Your task to perform on an android device: Is it going to rain tomorrow? Image 0: 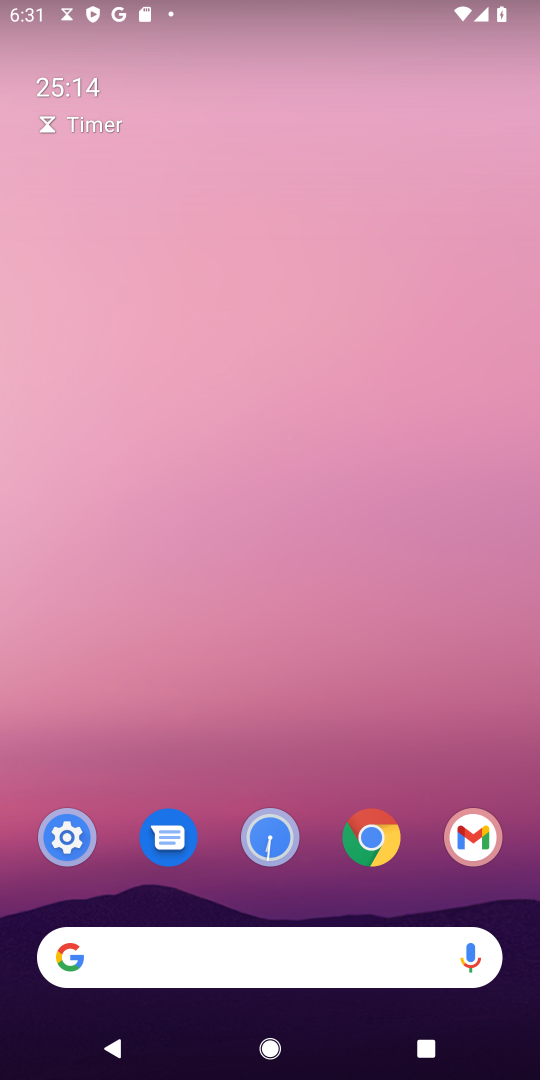
Step 0: press home button
Your task to perform on an android device: Is it going to rain tomorrow? Image 1: 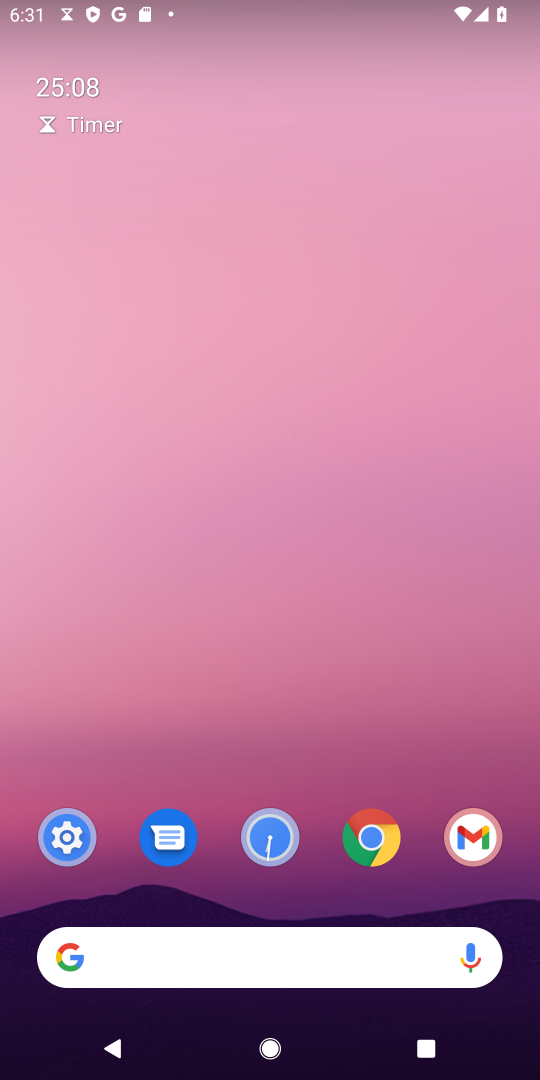
Step 1: drag from (322, 878) to (350, 191)
Your task to perform on an android device: Is it going to rain tomorrow? Image 2: 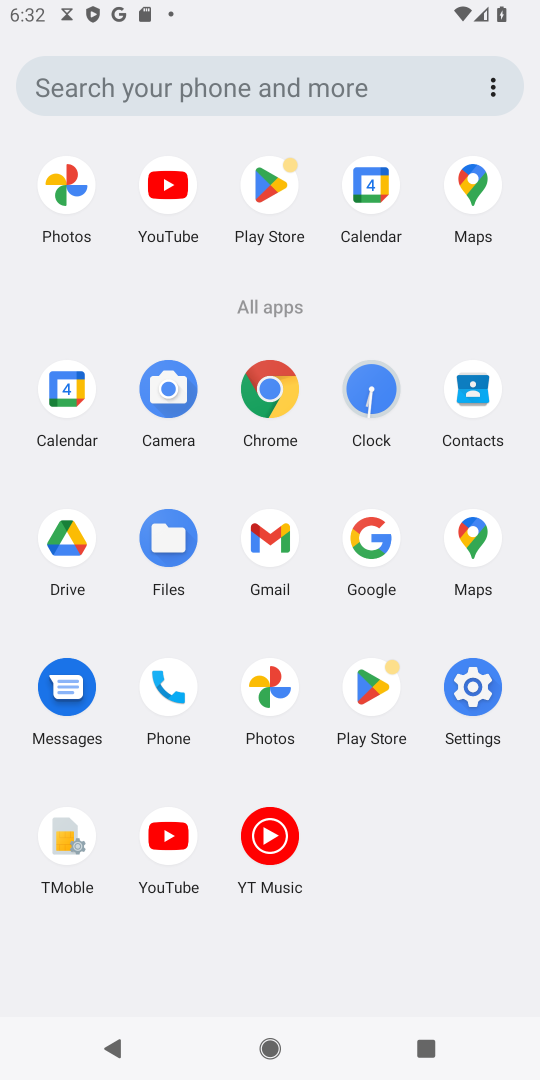
Step 2: press back button
Your task to perform on an android device: Is it going to rain tomorrow? Image 3: 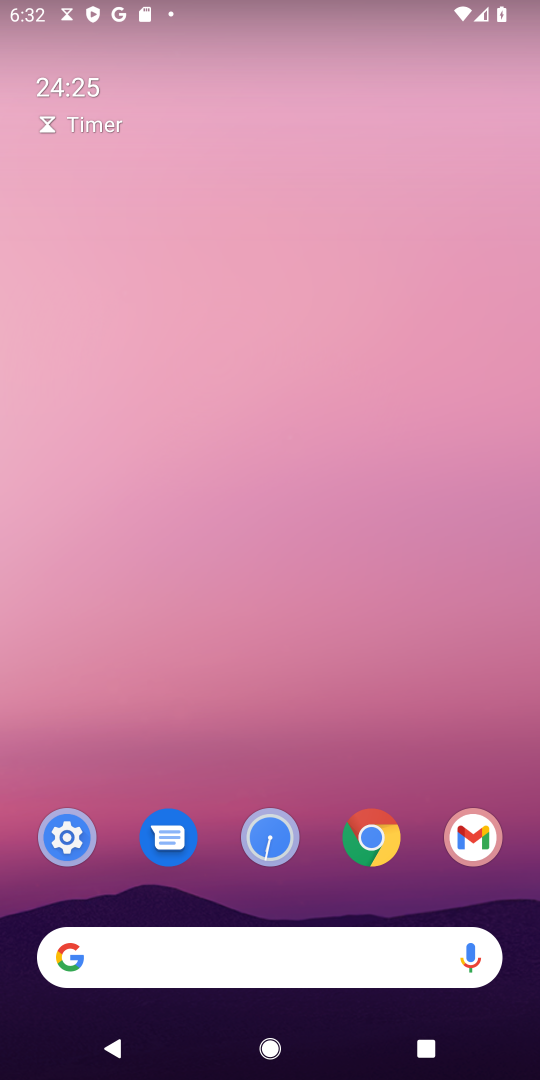
Step 3: click (198, 955)
Your task to perform on an android device: Is it going to rain tomorrow? Image 4: 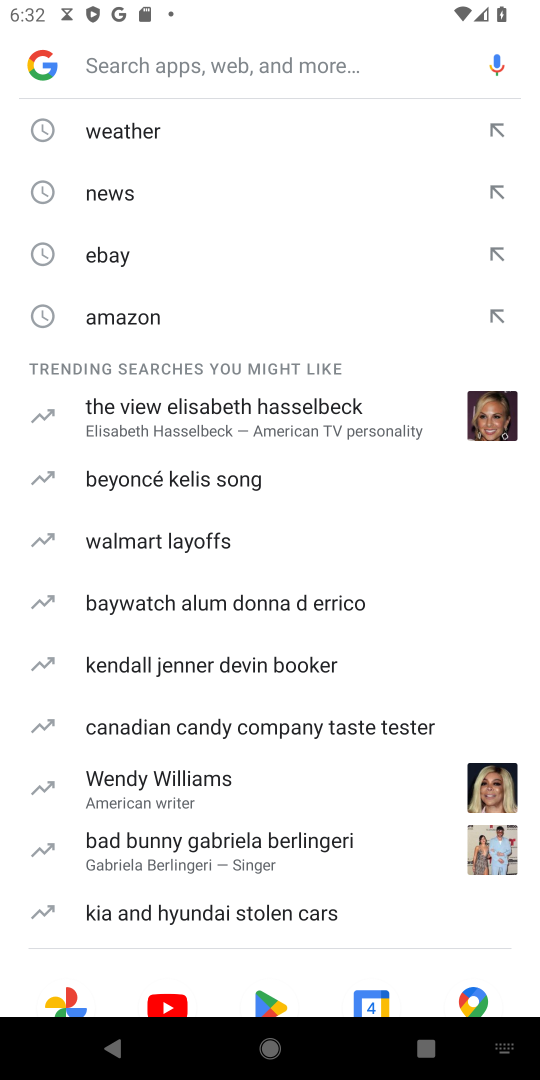
Step 4: click (169, 124)
Your task to perform on an android device: Is it going to rain tomorrow? Image 5: 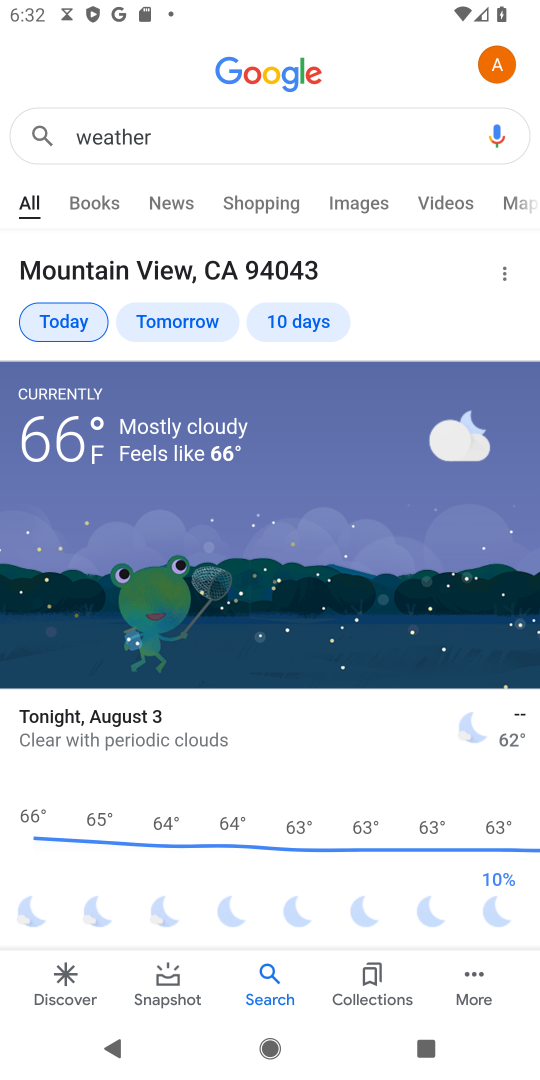
Step 5: click (170, 329)
Your task to perform on an android device: Is it going to rain tomorrow? Image 6: 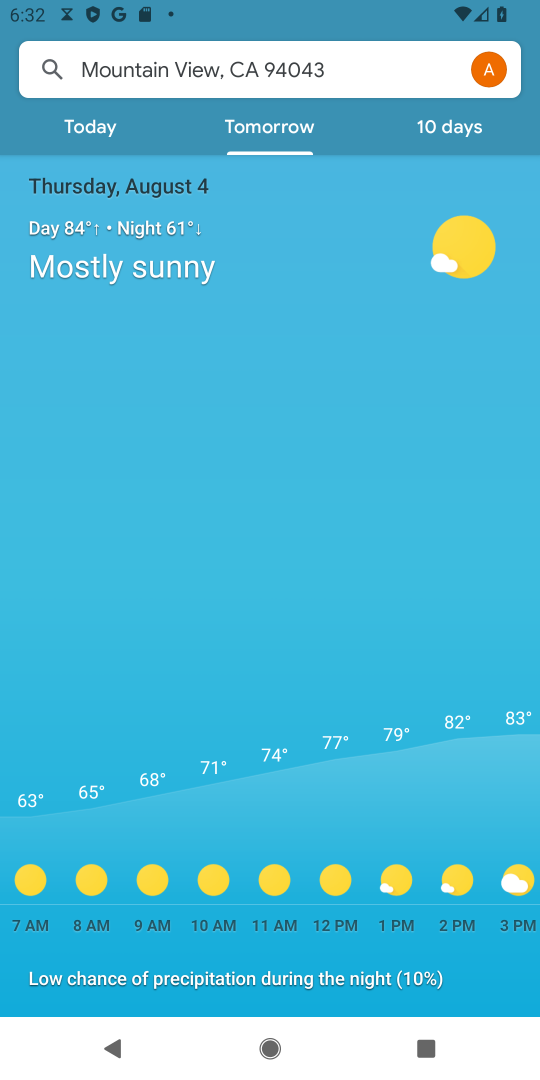
Step 6: drag from (453, 886) to (59, 917)
Your task to perform on an android device: Is it going to rain tomorrow? Image 7: 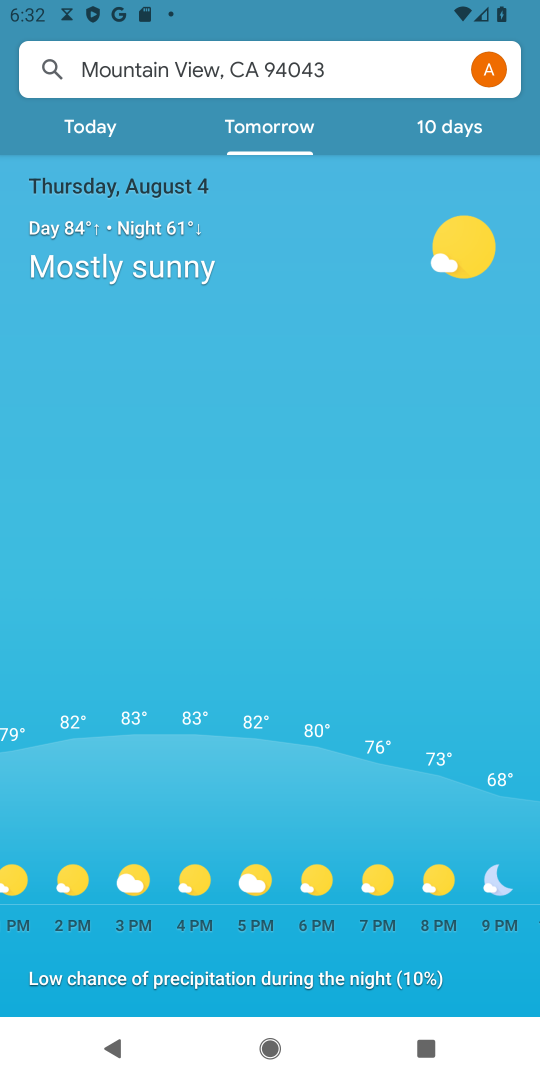
Step 7: click (493, 889)
Your task to perform on an android device: Is it going to rain tomorrow? Image 8: 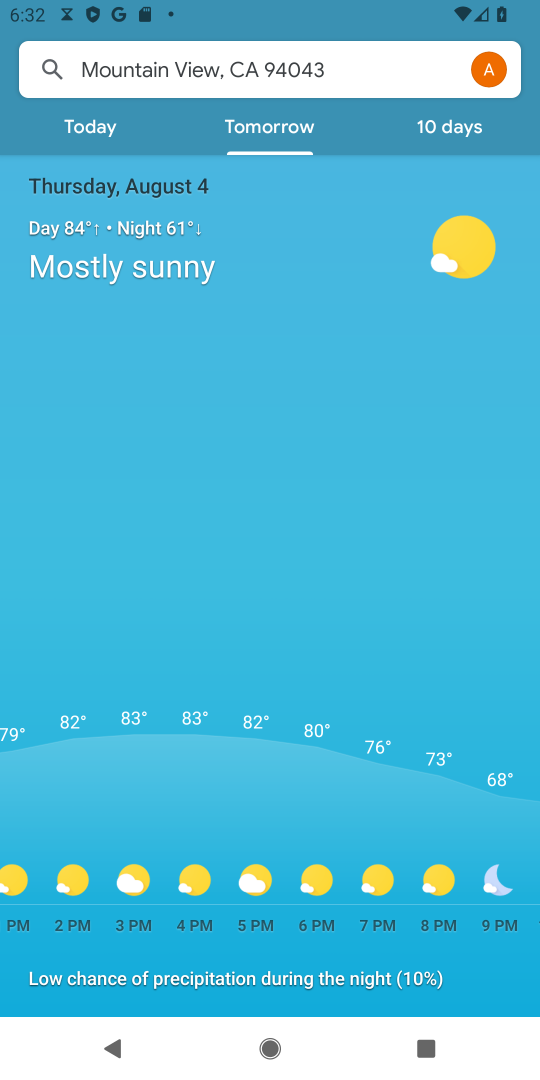
Step 8: task complete